Your task to perform on an android device: Go to wifi settings Image 0: 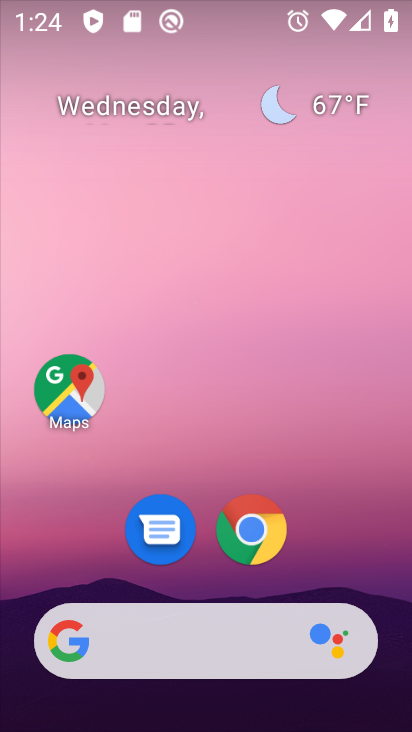
Step 0: drag from (331, 522) to (249, 96)
Your task to perform on an android device: Go to wifi settings Image 1: 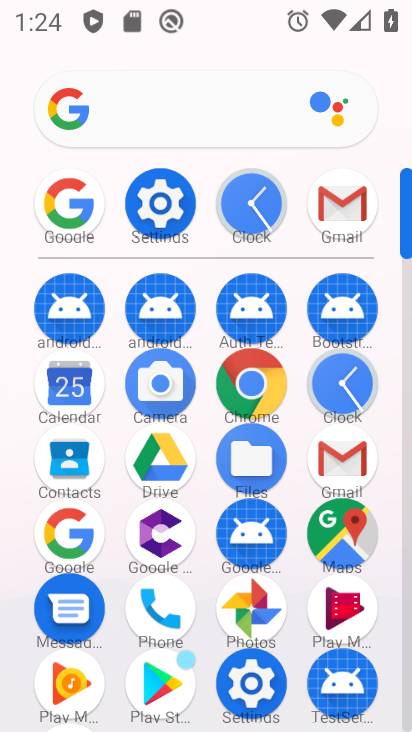
Step 1: click (161, 204)
Your task to perform on an android device: Go to wifi settings Image 2: 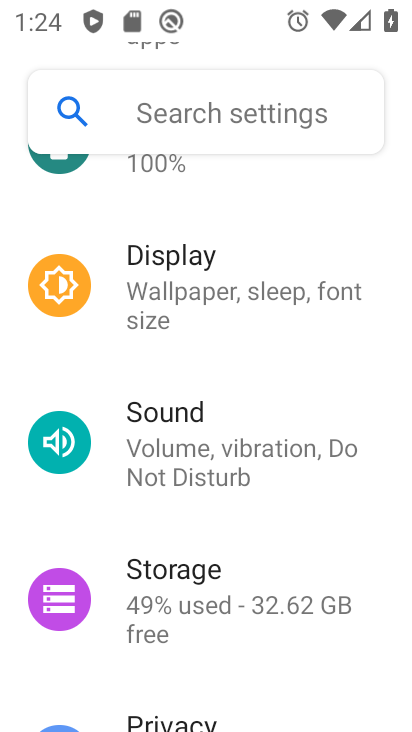
Step 2: drag from (237, 206) to (272, 407)
Your task to perform on an android device: Go to wifi settings Image 3: 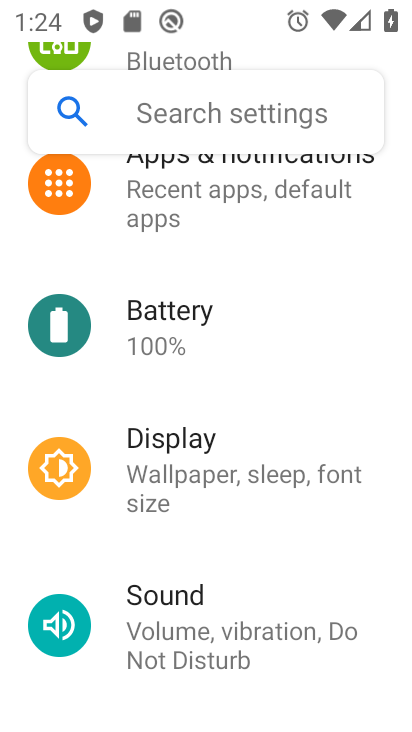
Step 3: drag from (250, 257) to (267, 413)
Your task to perform on an android device: Go to wifi settings Image 4: 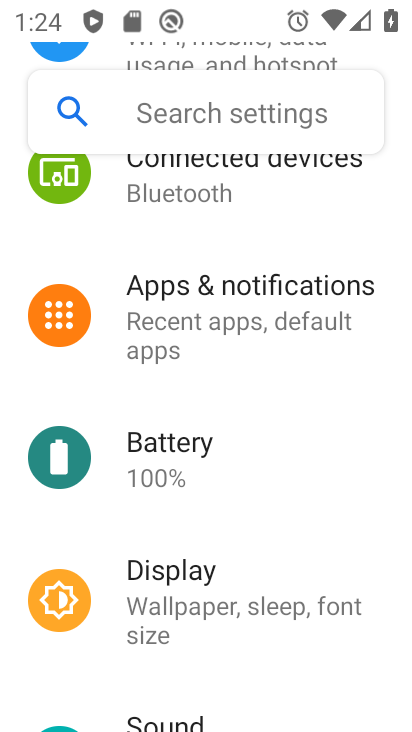
Step 4: drag from (224, 222) to (269, 356)
Your task to perform on an android device: Go to wifi settings Image 5: 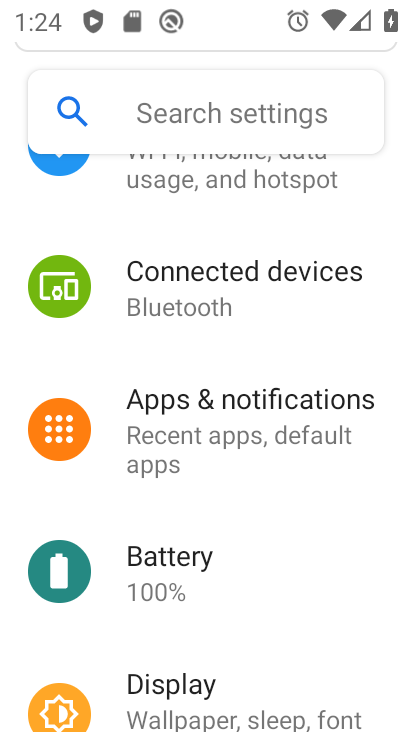
Step 5: drag from (249, 212) to (288, 400)
Your task to perform on an android device: Go to wifi settings Image 6: 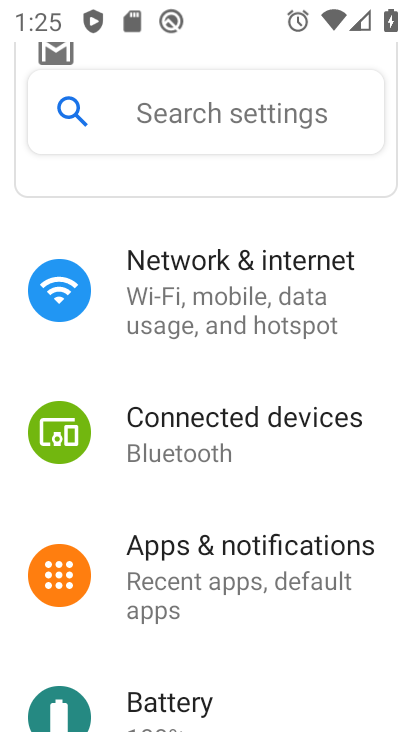
Step 6: click (235, 264)
Your task to perform on an android device: Go to wifi settings Image 7: 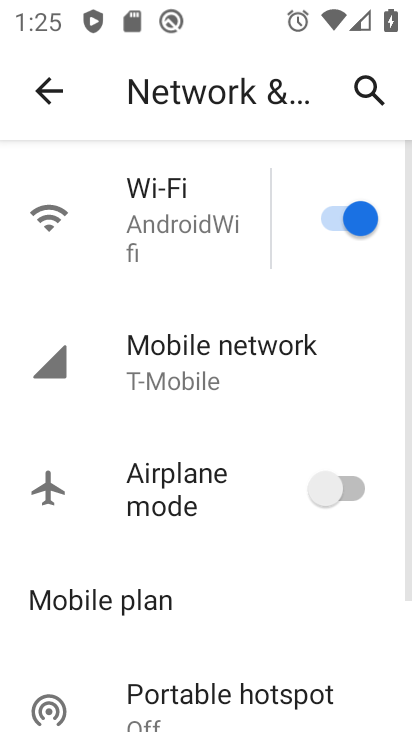
Step 7: click (174, 222)
Your task to perform on an android device: Go to wifi settings Image 8: 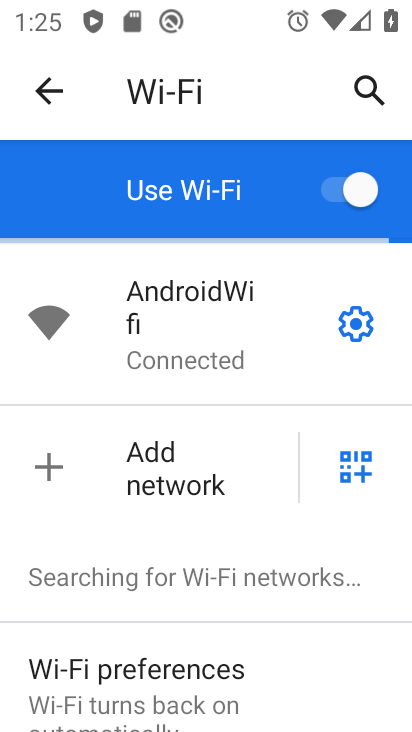
Step 8: click (349, 327)
Your task to perform on an android device: Go to wifi settings Image 9: 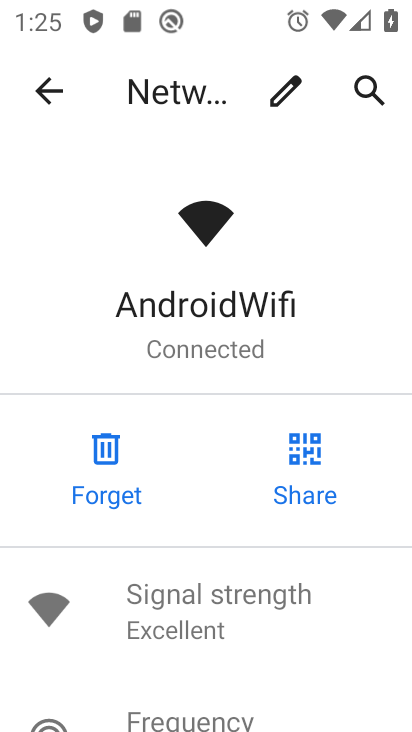
Step 9: task complete